Your task to perform on an android device: see creations saved in the google photos Image 0: 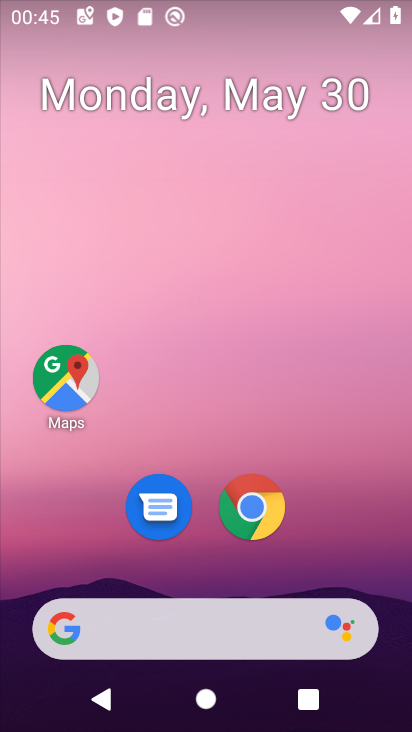
Step 0: drag from (335, 565) to (314, 198)
Your task to perform on an android device: see creations saved in the google photos Image 1: 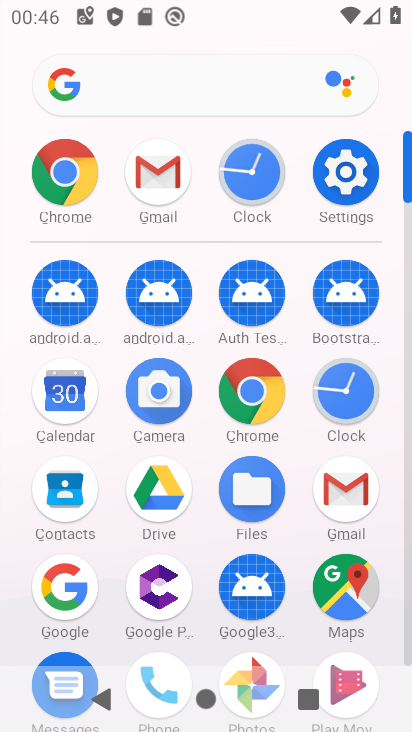
Step 1: drag from (226, 626) to (283, 322)
Your task to perform on an android device: see creations saved in the google photos Image 2: 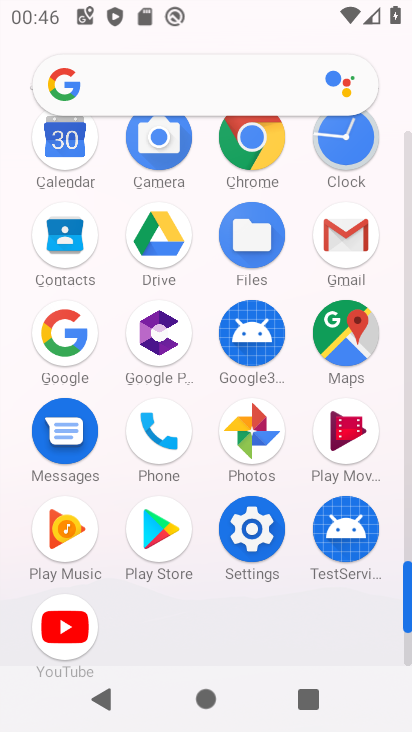
Step 2: click (259, 445)
Your task to perform on an android device: see creations saved in the google photos Image 3: 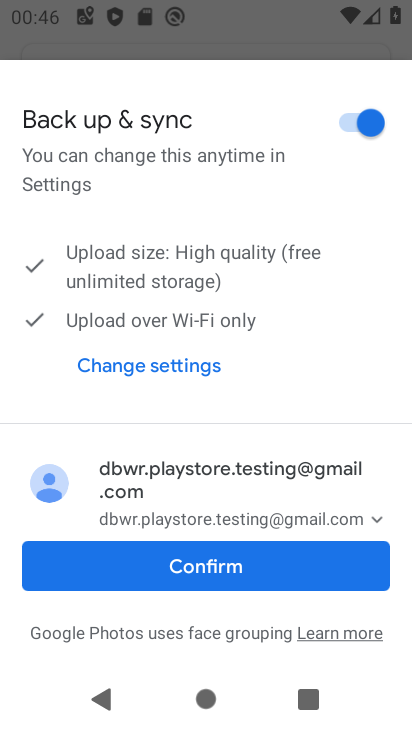
Step 3: click (241, 568)
Your task to perform on an android device: see creations saved in the google photos Image 4: 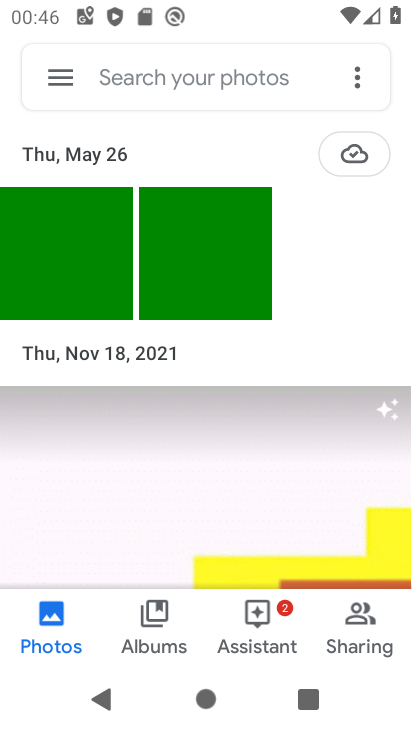
Step 4: task complete